Your task to perform on an android device: check the backup settings in the google photos Image 0: 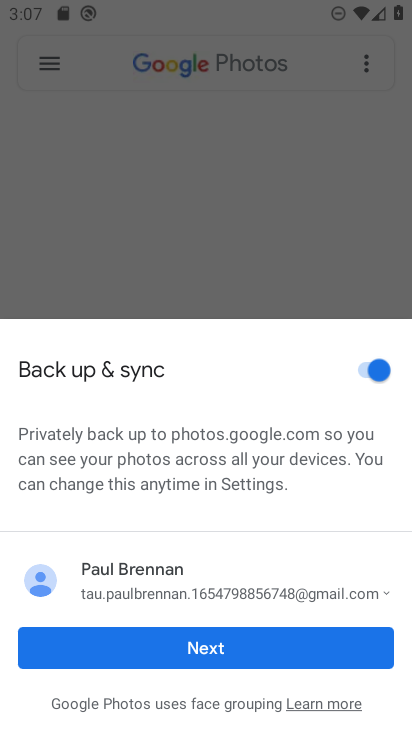
Step 0: press home button
Your task to perform on an android device: check the backup settings in the google photos Image 1: 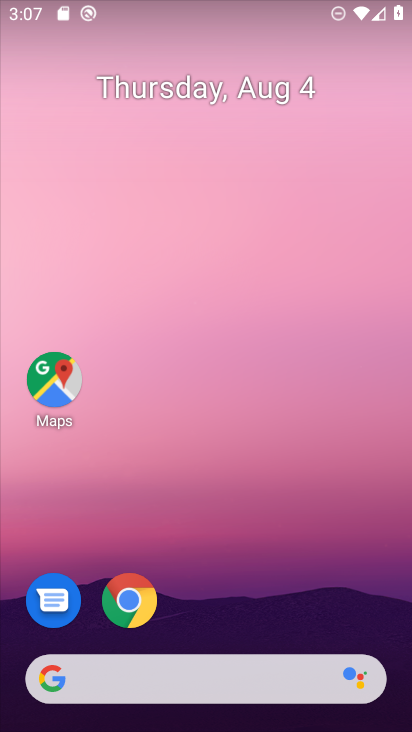
Step 1: drag from (144, 686) to (303, 39)
Your task to perform on an android device: check the backup settings in the google photos Image 2: 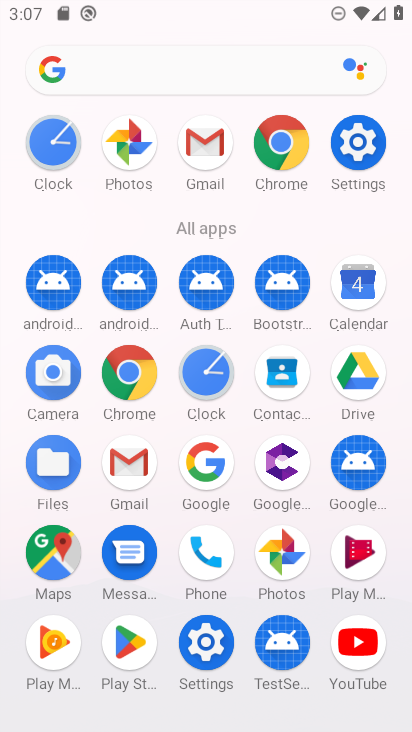
Step 2: click (272, 550)
Your task to perform on an android device: check the backup settings in the google photos Image 3: 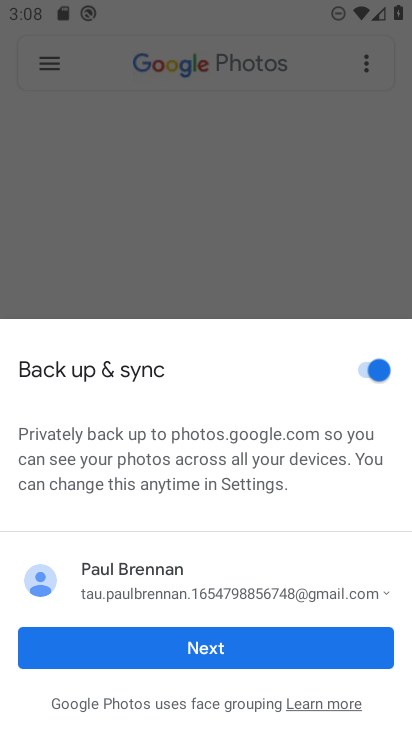
Step 3: click (227, 643)
Your task to perform on an android device: check the backup settings in the google photos Image 4: 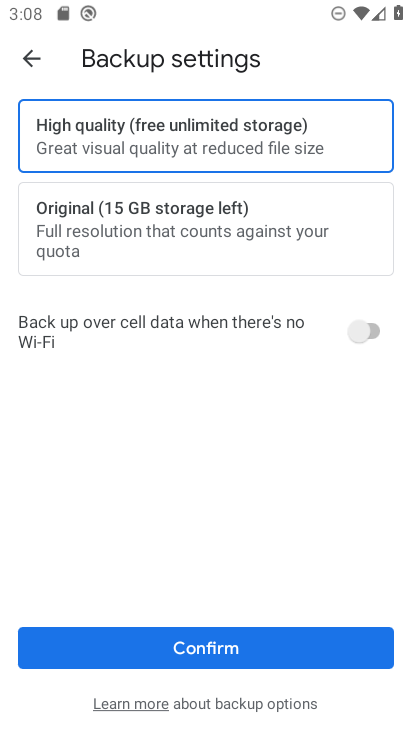
Step 4: click (227, 644)
Your task to perform on an android device: check the backup settings in the google photos Image 5: 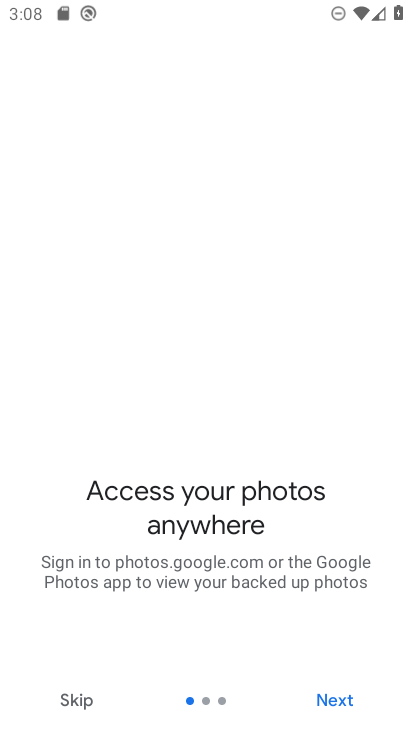
Step 5: click (318, 696)
Your task to perform on an android device: check the backup settings in the google photos Image 6: 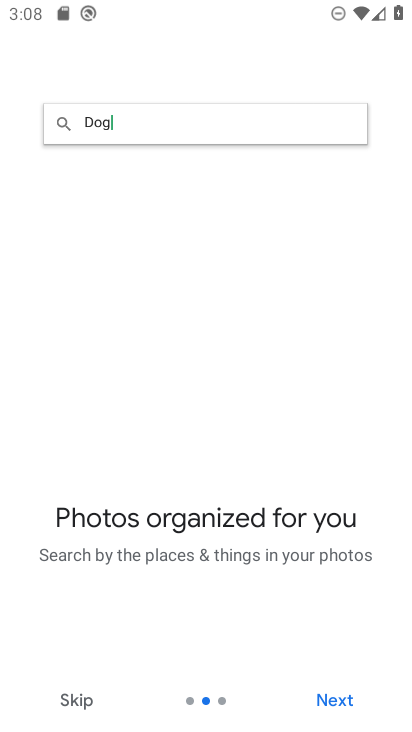
Step 6: click (330, 698)
Your task to perform on an android device: check the backup settings in the google photos Image 7: 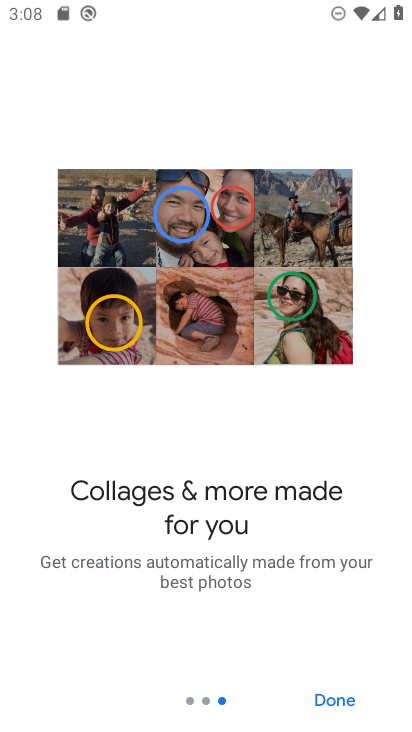
Step 7: click (330, 698)
Your task to perform on an android device: check the backup settings in the google photos Image 8: 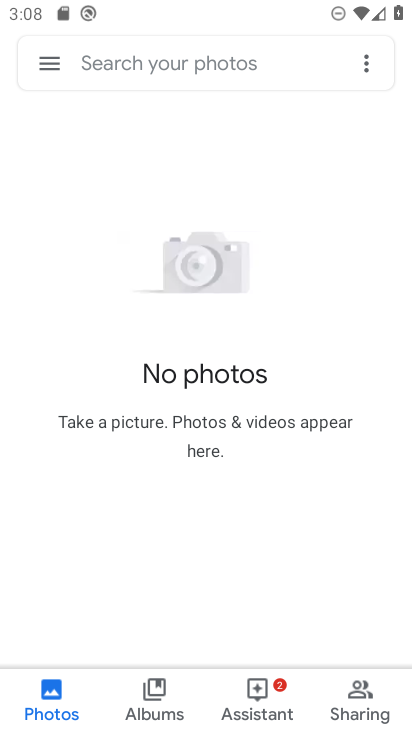
Step 8: click (49, 64)
Your task to perform on an android device: check the backup settings in the google photos Image 9: 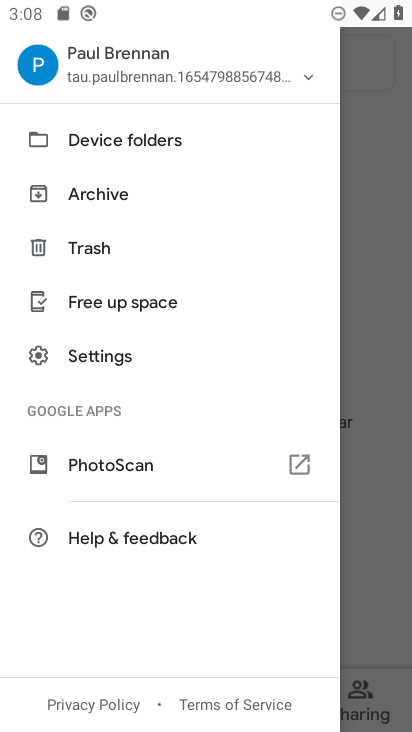
Step 9: click (82, 350)
Your task to perform on an android device: check the backup settings in the google photos Image 10: 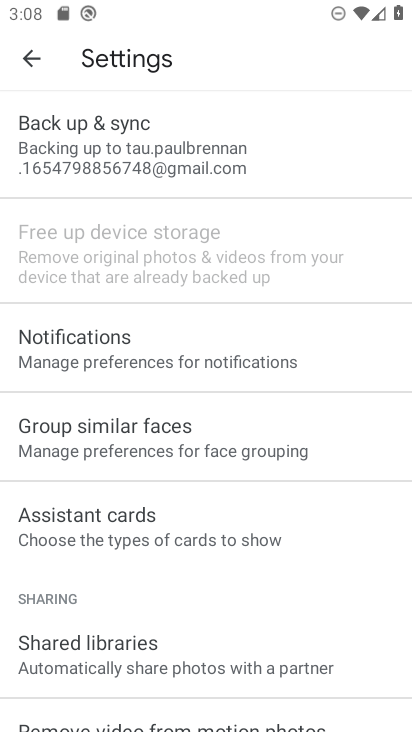
Step 10: click (197, 168)
Your task to perform on an android device: check the backup settings in the google photos Image 11: 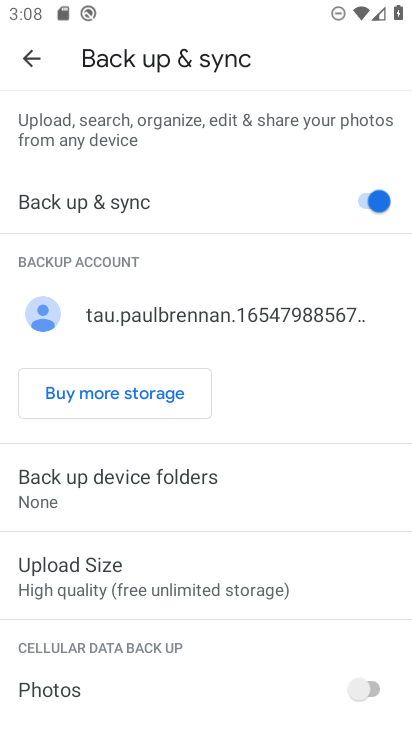
Step 11: click (170, 215)
Your task to perform on an android device: check the backup settings in the google photos Image 12: 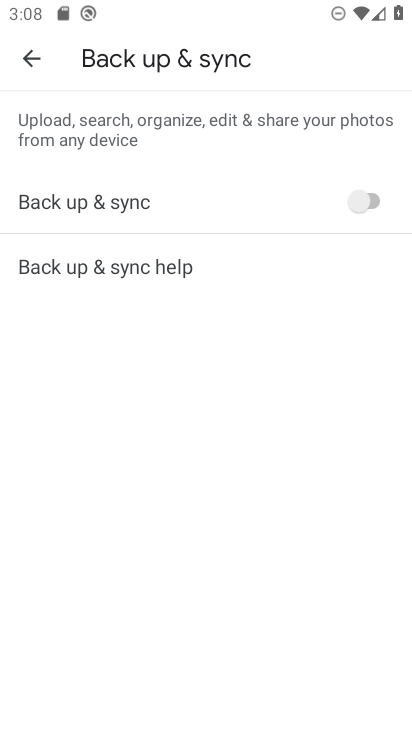
Step 12: click (366, 198)
Your task to perform on an android device: check the backup settings in the google photos Image 13: 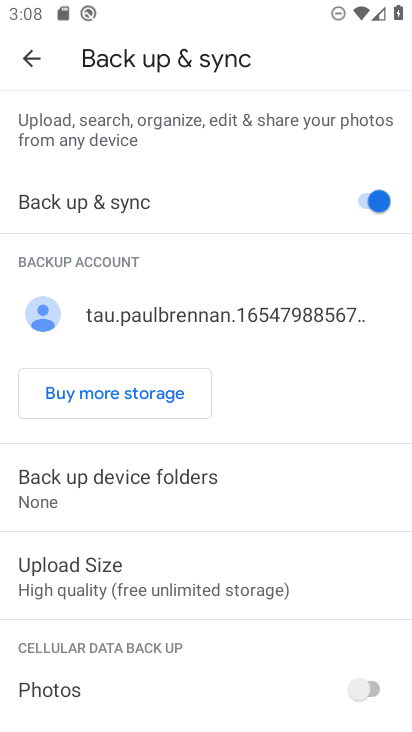
Step 13: task complete